Your task to perform on an android device: turn off sleep mode Image 0: 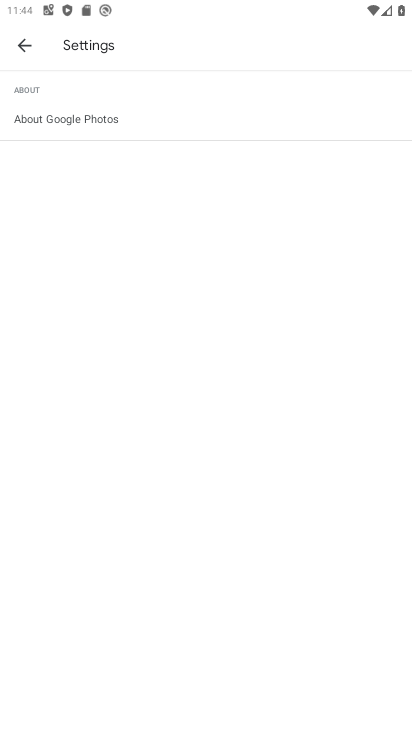
Step 0: press home button
Your task to perform on an android device: turn off sleep mode Image 1: 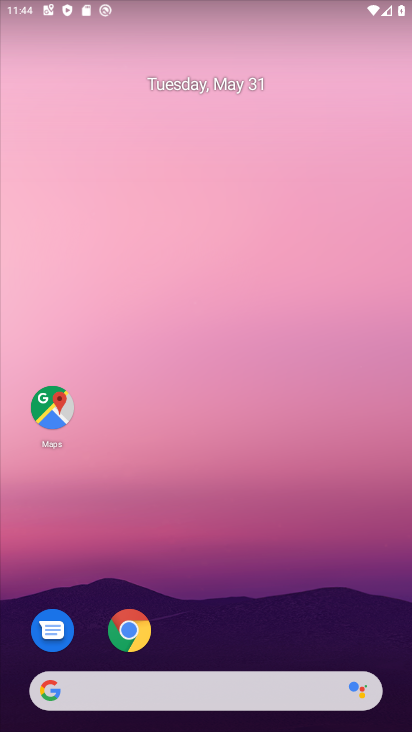
Step 1: drag from (310, 512) to (320, 194)
Your task to perform on an android device: turn off sleep mode Image 2: 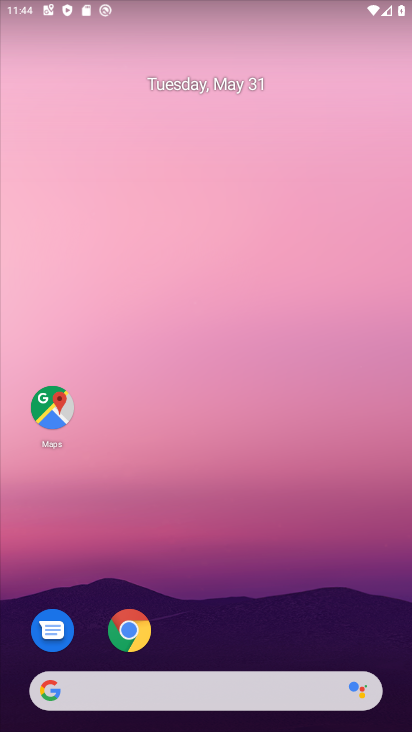
Step 2: drag from (257, 601) to (287, 138)
Your task to perform on an android device: turn off sleep mode Image 3: 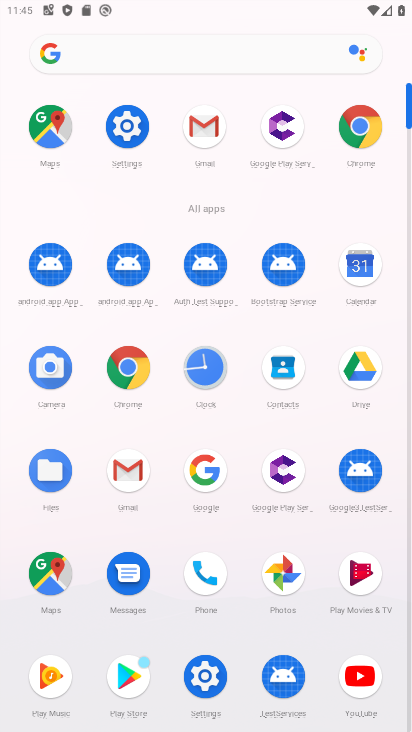
Step 3: click (119, 126)
Your task to perform on an android device: turn off sleep mode Image 4: 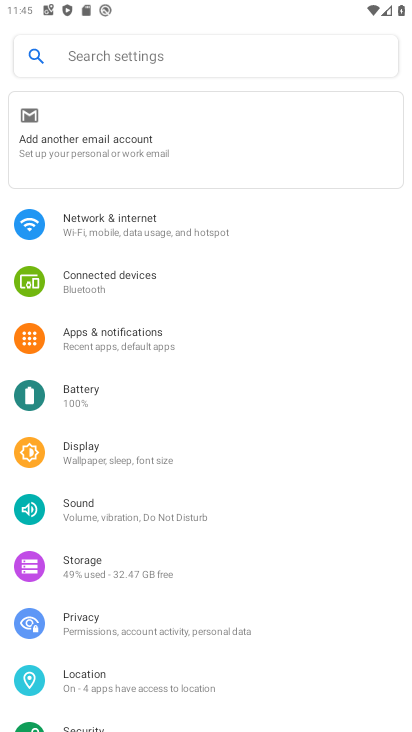
Step 4: click (115, 453)
Your task to perform on an android device: turn off sleep mode Image 5: 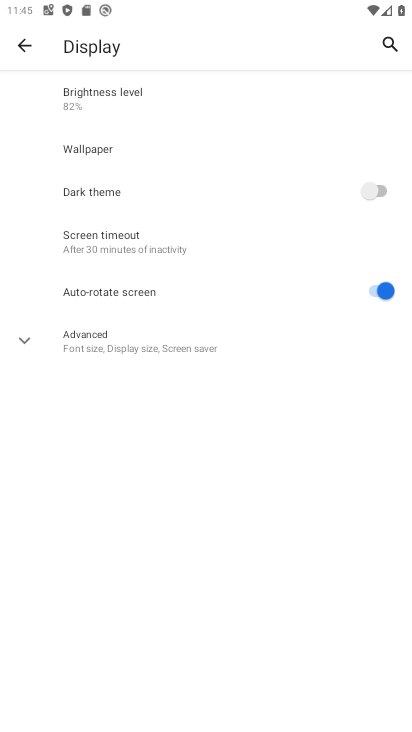
Step 5: task complete